Your task to perform on an android device: toggle notifications settings in the gmail app Image 0: 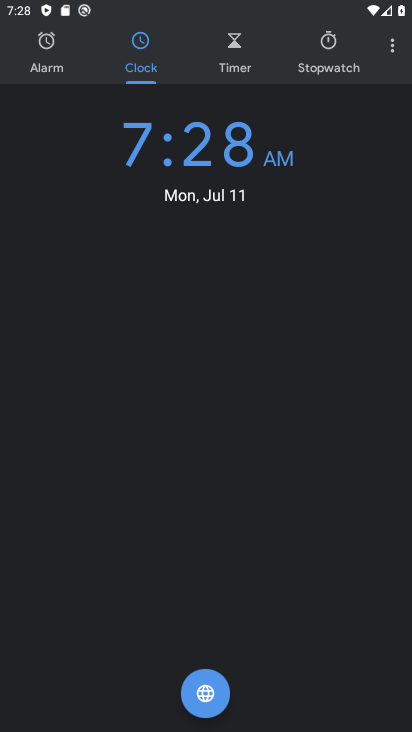
Step 0: press home button
Your task to perform on an android device: toggle notifications settings in the gmail app Image 1: 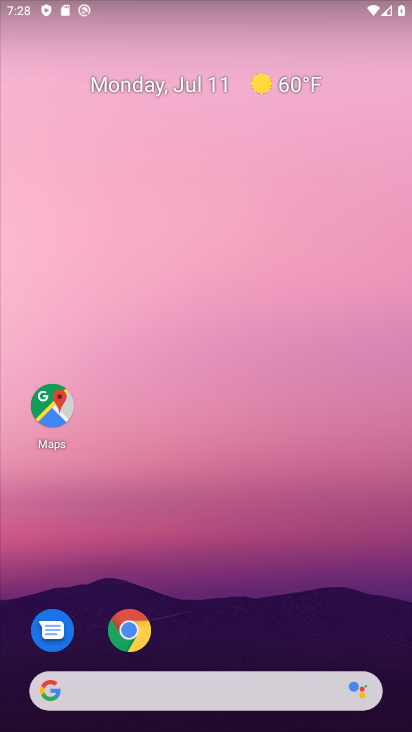
Step 1: drag from (385, 641) to (328, 80)
Your task to perform on an android device: toggle notifications settings in the gmail app Image 2: 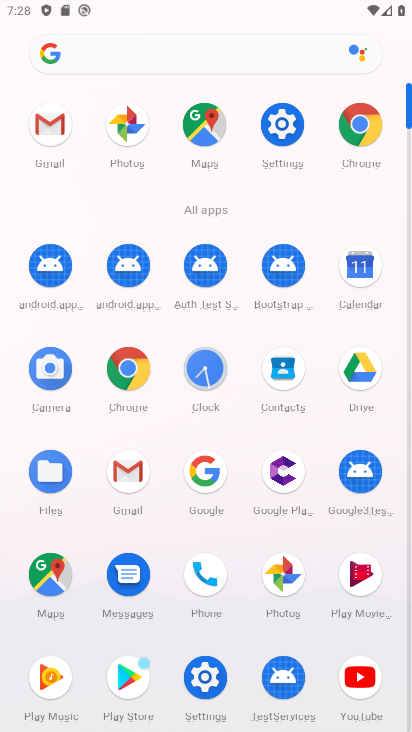
Step 2: drag from (337, 371) to (329, 124)
Your task to perform on an android device: toggle notifications settings in the gmail app Image 3: 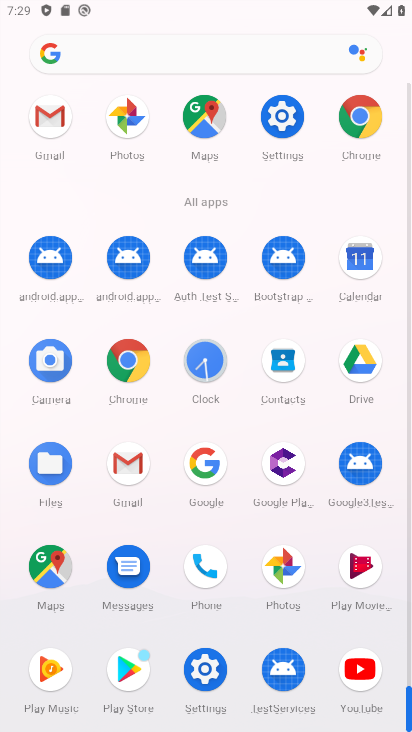
Step 3: click (131, 466)
Your task to perform on an android device: toggle notifications settings in the gmail app Image 4: 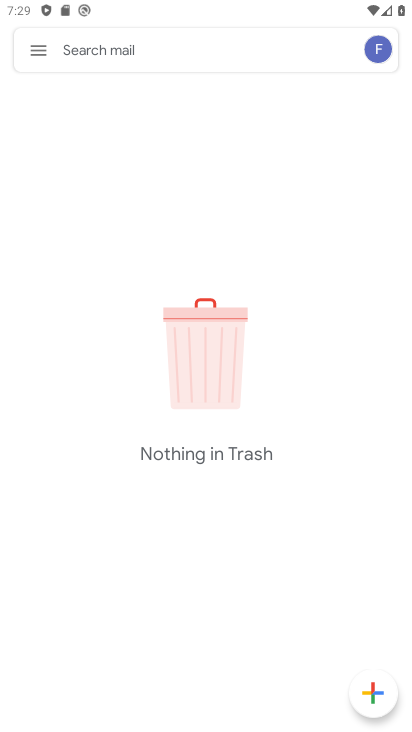
Step 4: click (31, 49)
Your task to perform on an android device: toggle notifications settings in the gmail app Image 5: 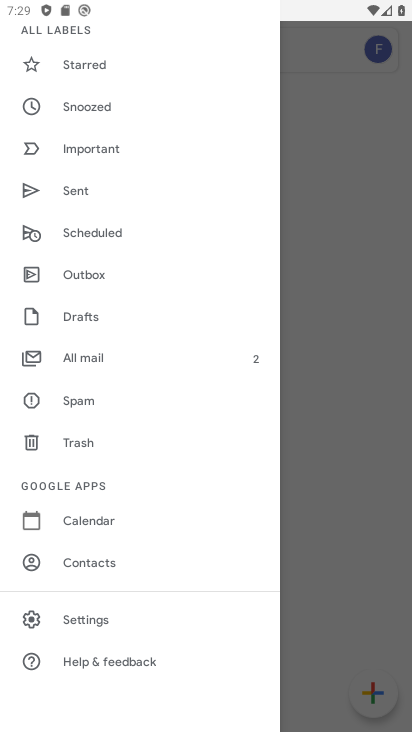
Step 5: click (88, 619)
Your task to perform on an android device: toggle notifications settings in the gmail app Image 6: 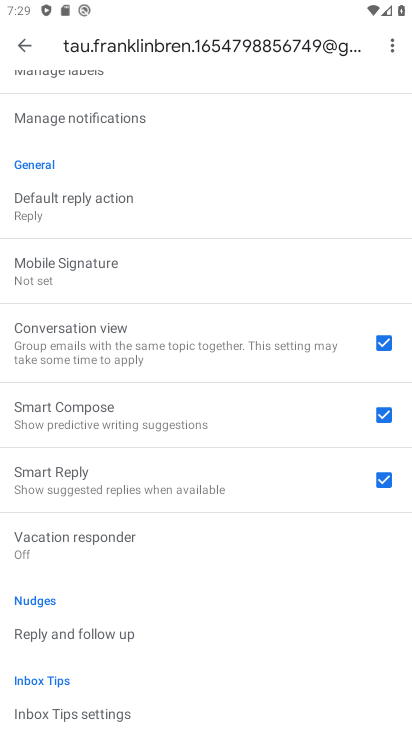
Step 6: drag from (238, 220) to (213, 440)
Your task to perform on an android device: toggle notifications settings in the gmail app Image 7: 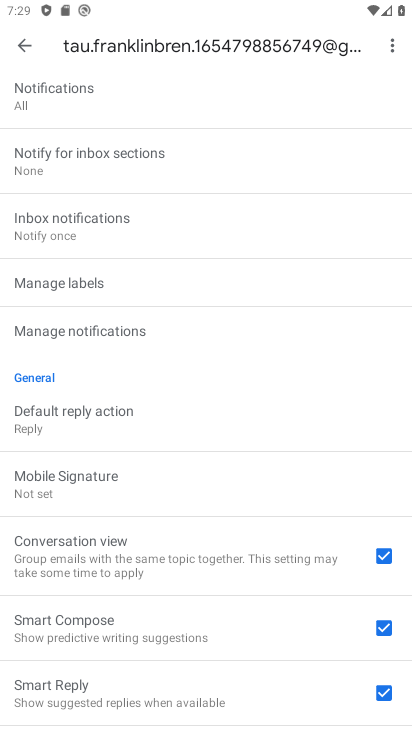
Step 7: click (95, 329)
Your task to perform on an android device: toggle notifications settings in the gmail app Image 8: 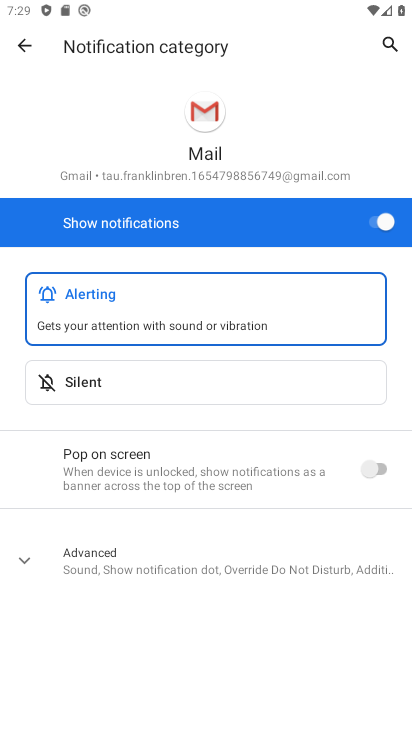
Step 8: click (373, 223)
Your task to perform on an android device: toggle notifications settings in the gmail app Image 9: 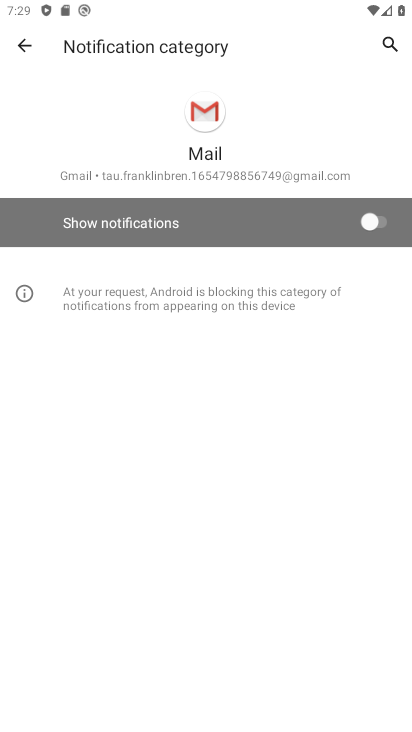
Step 9: task complete